Your task to perform on an android device: change the clock display to digital Image 0: 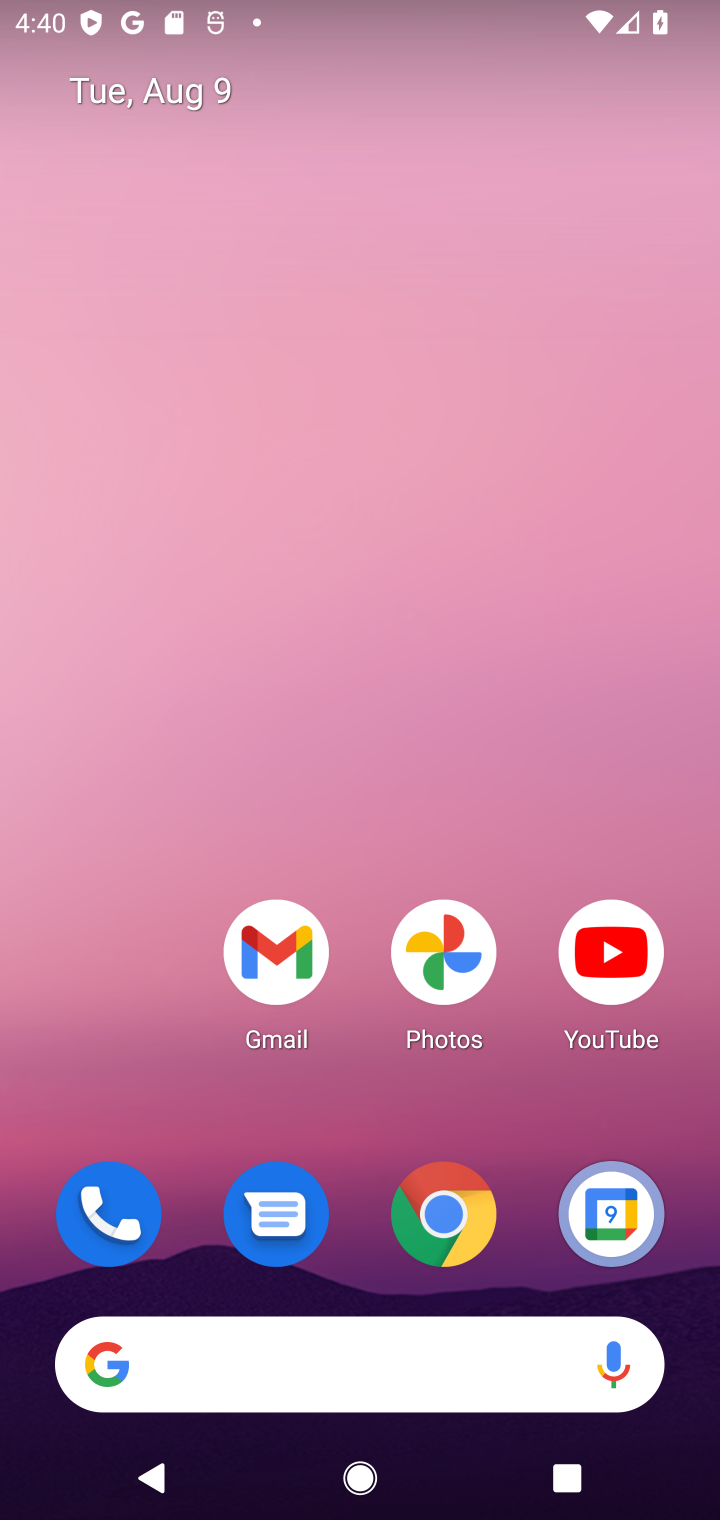
Step 0: press home button
Your task to perform on an android device: change the clock display to digital Image 1: 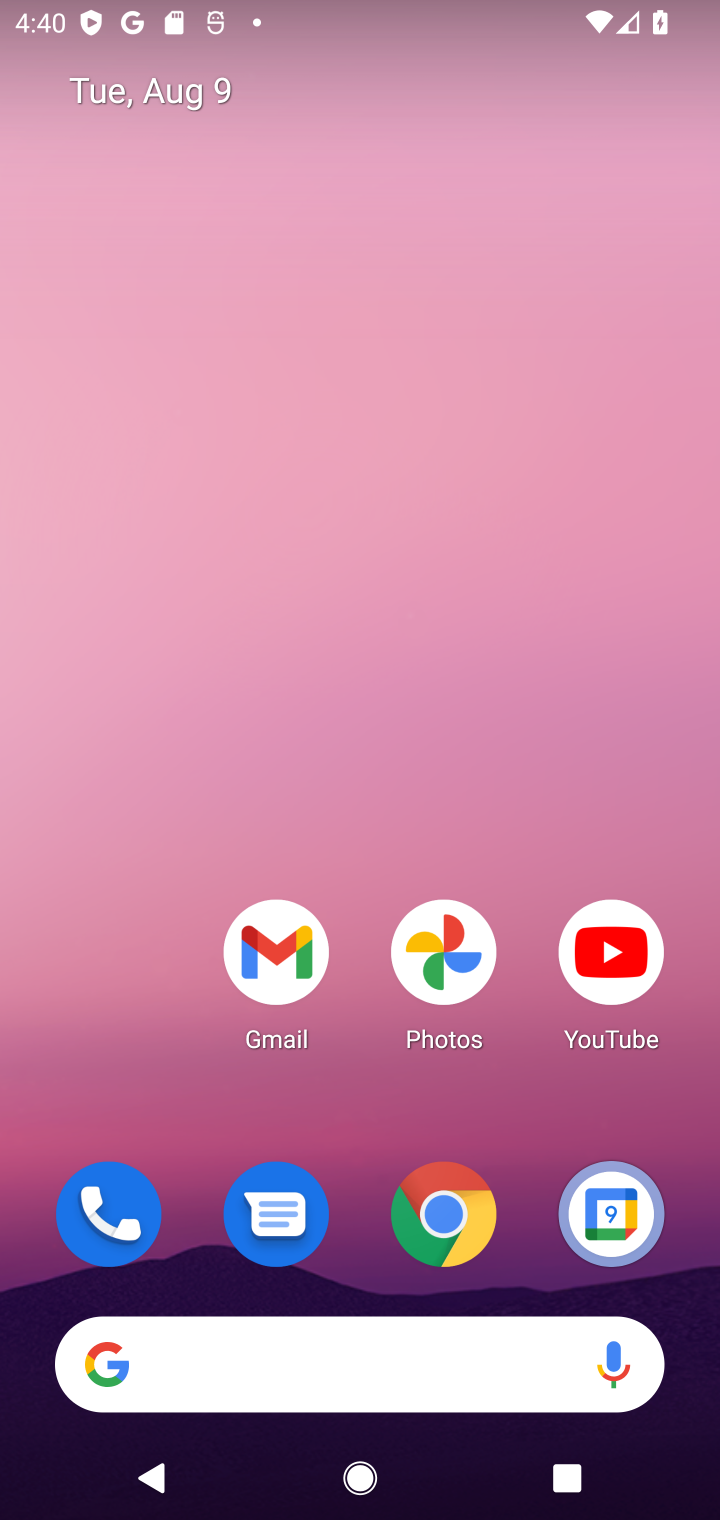
Step 1: drag from (453, 1338) to (278, 287)
Your task to perform on an android device: change the clock display to digital Image 2: 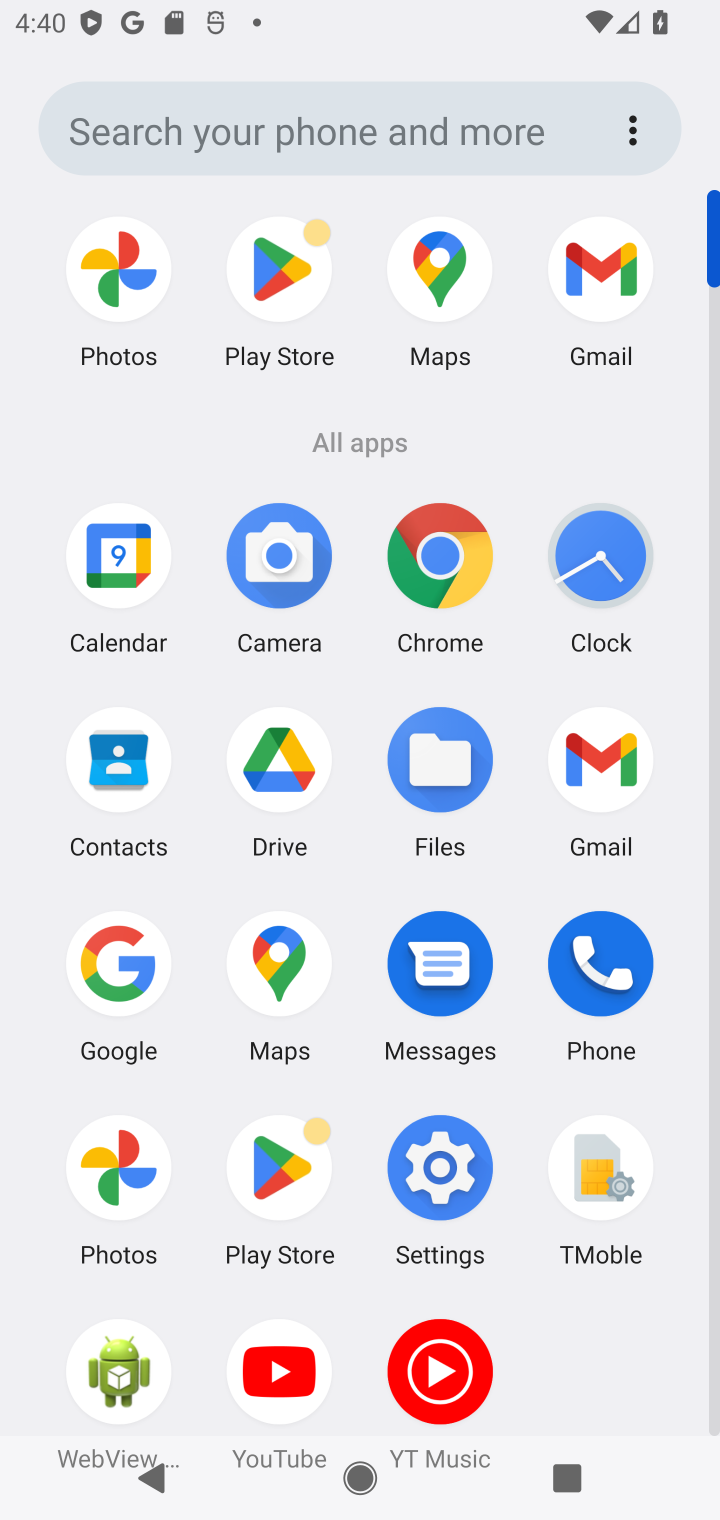
Step 2: click (580, 567)
Your task to perform on an android device: change the clock display to digital Image 3: 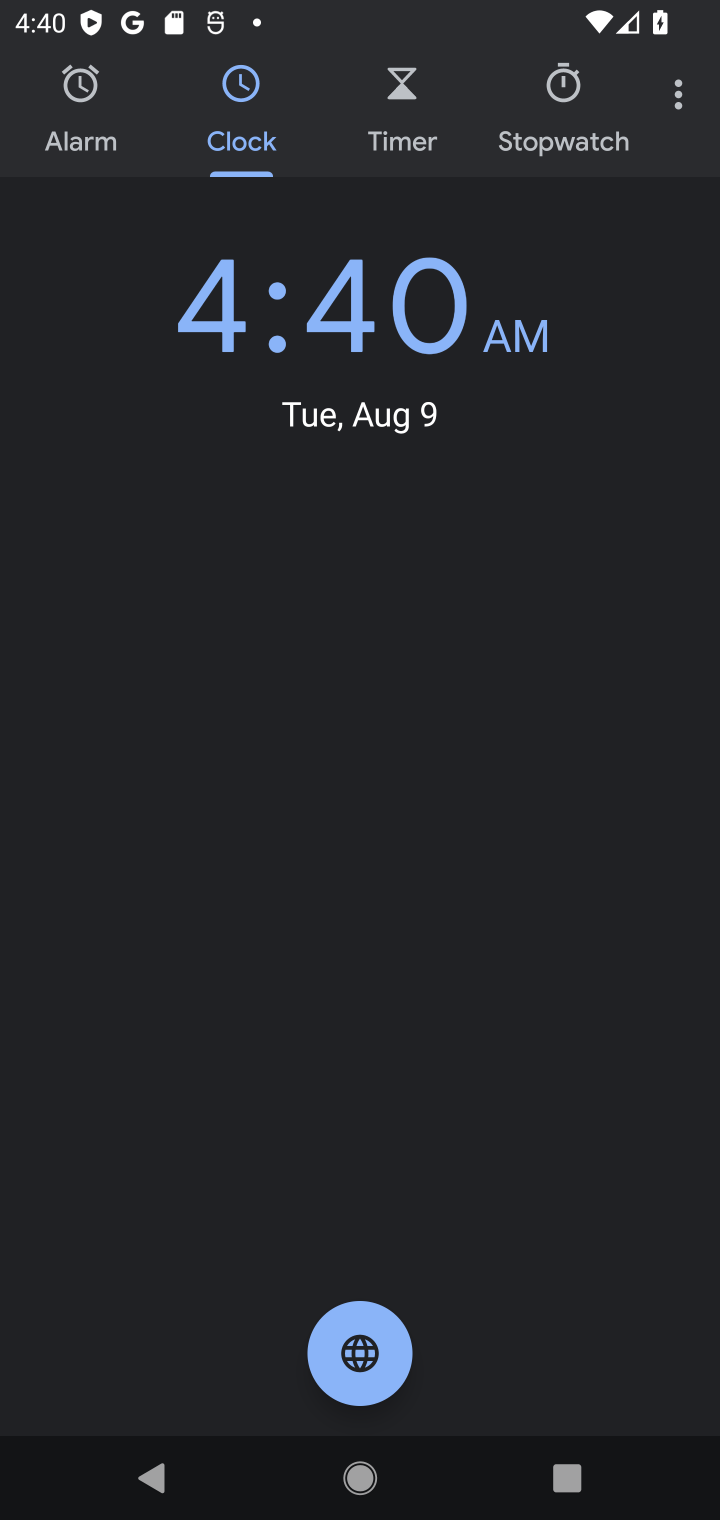
Step 3: click (679, 107)
Your task to perform on an android device: change the clock display to digital Image 4: 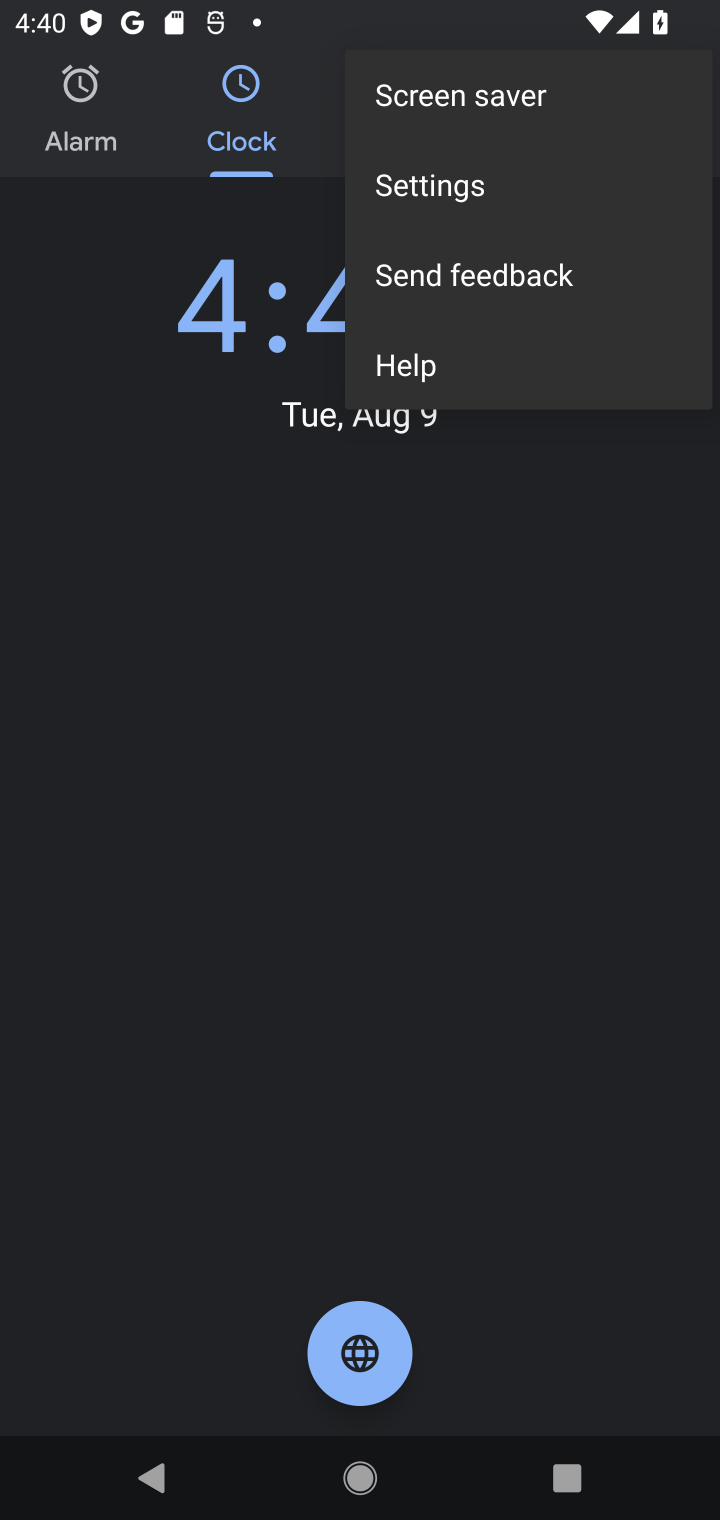
Step 4: click (460, 213)
Your task to perform on an android device: change the clock display to digital Image 5: 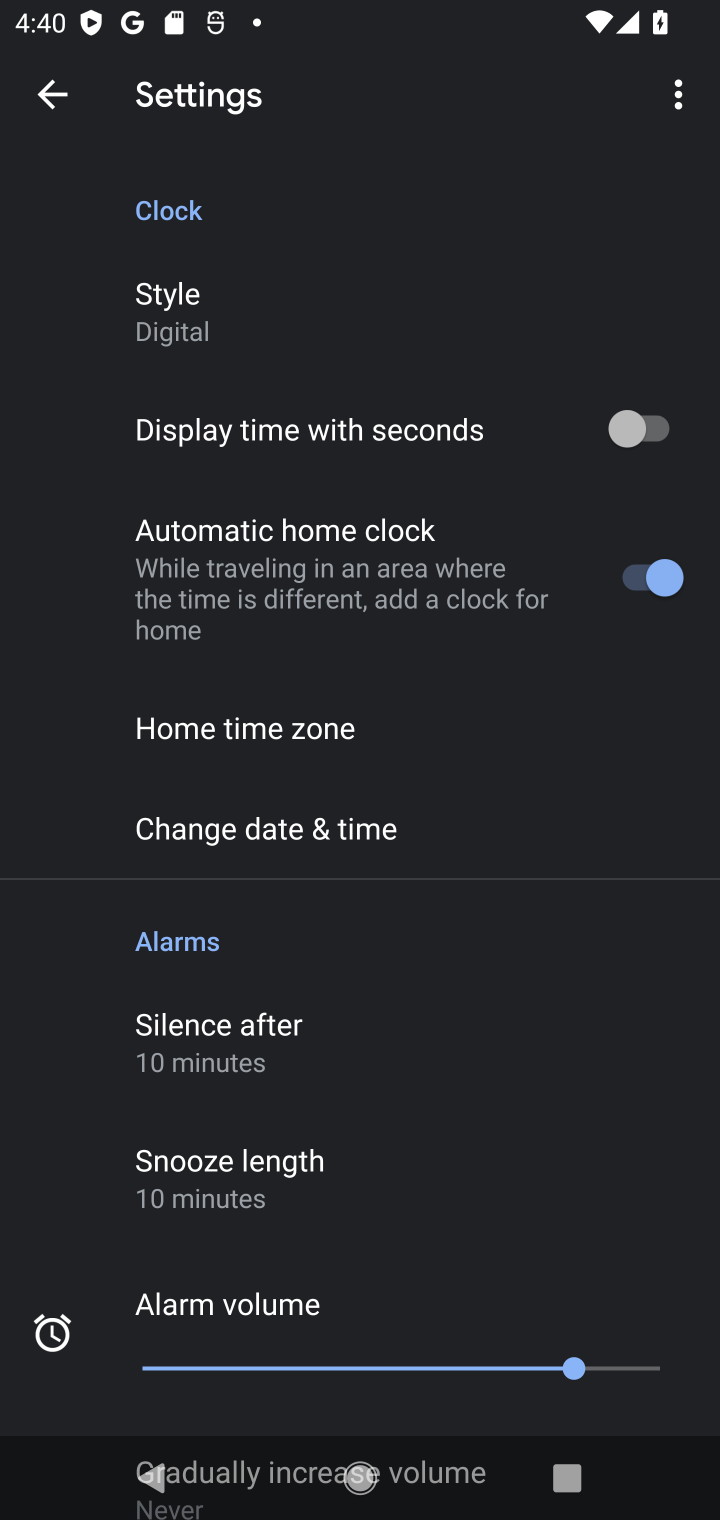
Step 5: click (152, 308)
Your task to perform on an android device: change the clock display to digital Image 6: 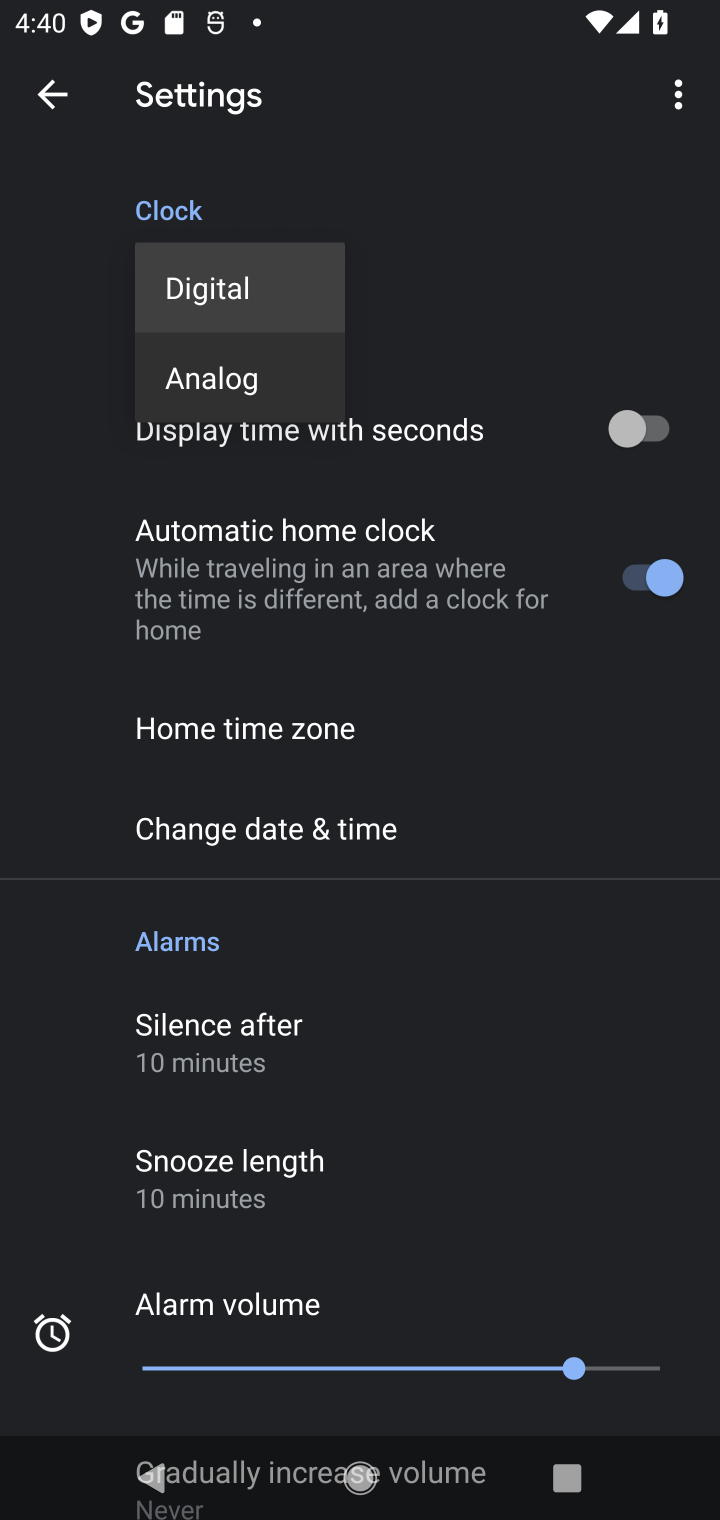
Step 6: click (240, 300)
Your task to perform on an android device: change the clock display to digital Image 7: 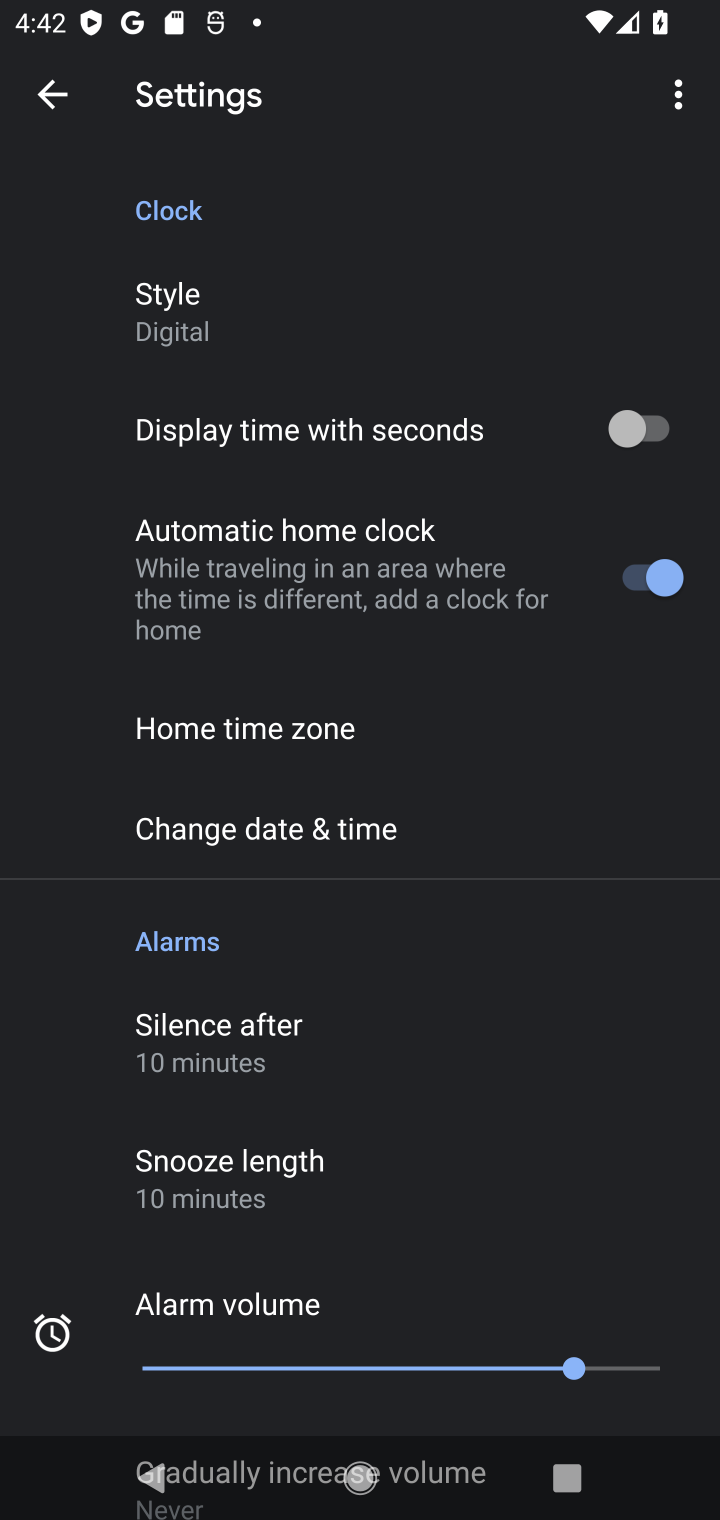
Step 7: task complete